Your task to perform on an android device: Is it going to rain today? Image 0: 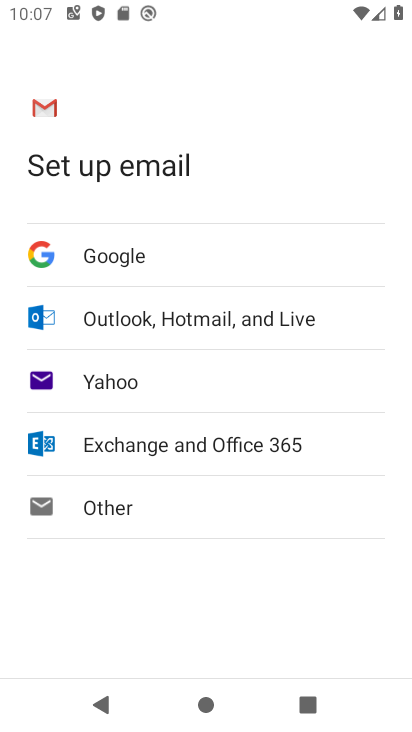
Step 0: press home button
Your task to perform on an android device: Is it going to rain today? Image 1: 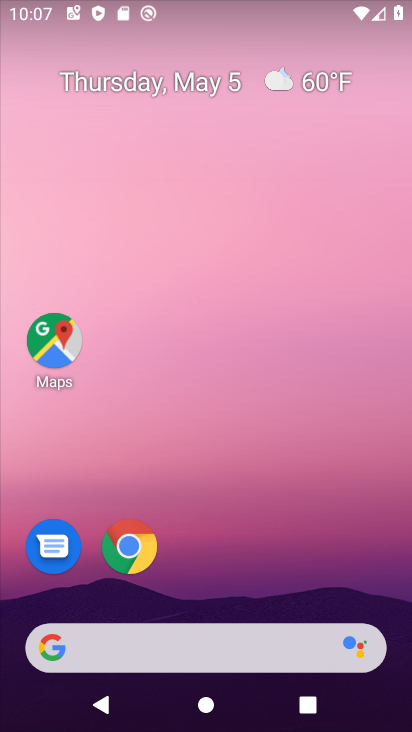
Step 1: drag from (260, 612) to (183, 23)
Your task to perform on an android device: Is it going to rain today? Image 2: 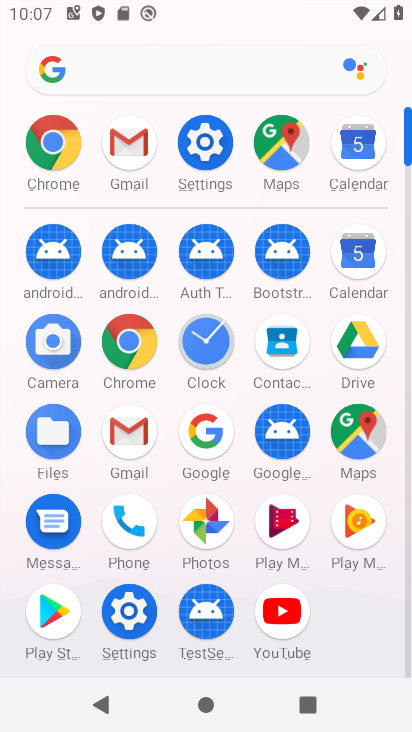
Step 2: click (135, 79)
Your task to perform on an android device: Is it going to rain today? Image 3: 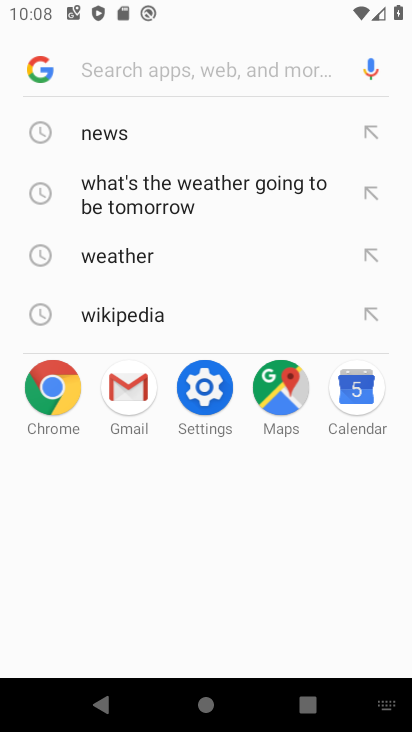
Step 3: type "is it going to rain today ?"
Your task to perform on an android device: Is it going to rain today? Image 4: 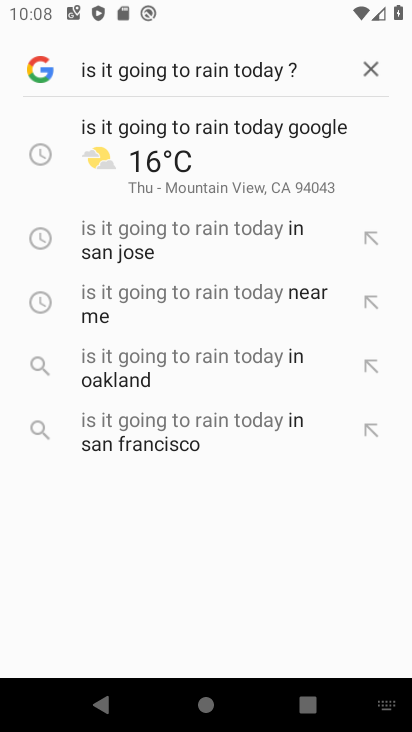
Step 4: click (248, 138)
Your task to perform on an android device: Is it going to rain today? Image 5: 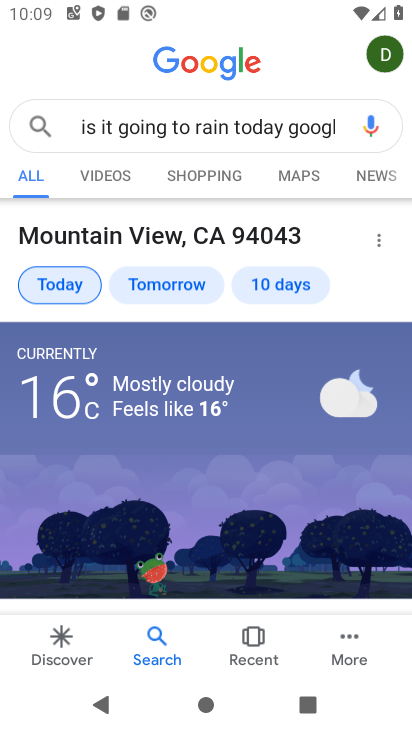
Step 5: task complete